Your task to perform on an android device: Go to calendar. Show me events next week Image 0: 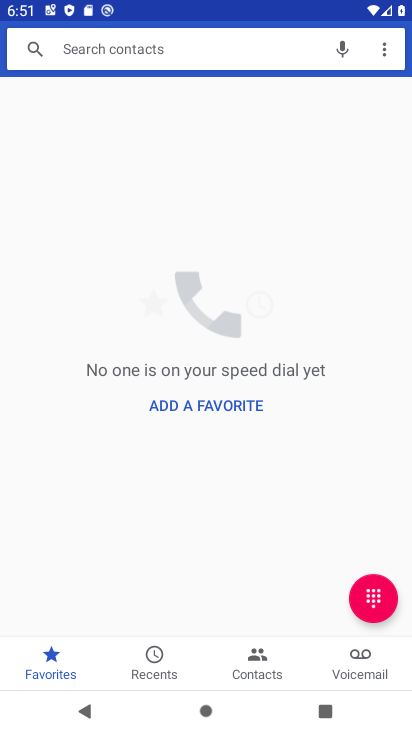
Step 0: press home button
Your task to perform on an android device: Go to calendar. Show me events next week Image 1: 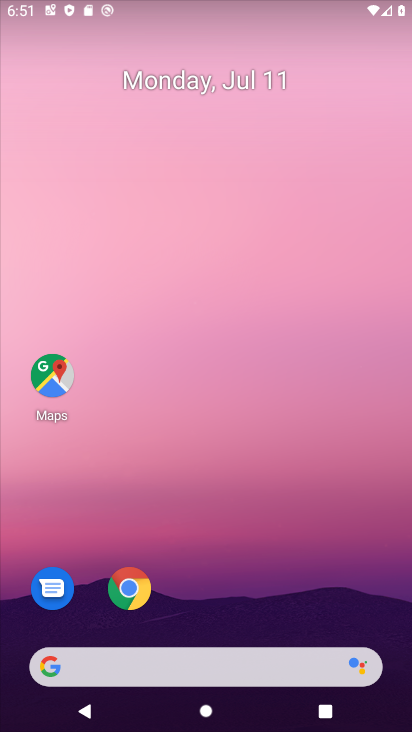
Step 1: drag from (389, 656) to (203, 176)
Your task to perform on an android device: Go to calendar. Show me events next week Image 2: 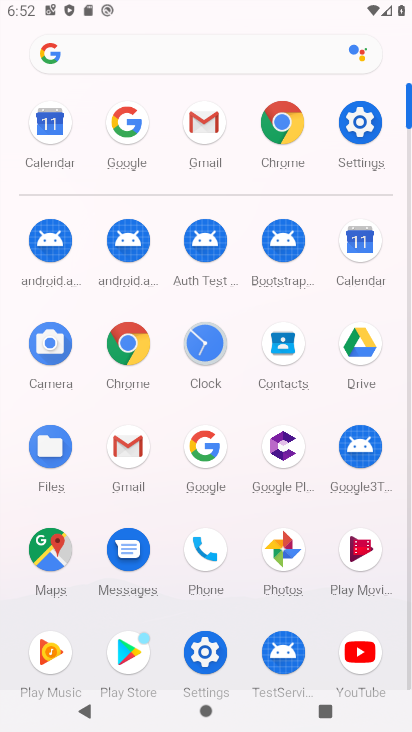
Step 2: click (368, 253)
Your task to perform on an android device: Go to calendar. Show me events next week Image 3: 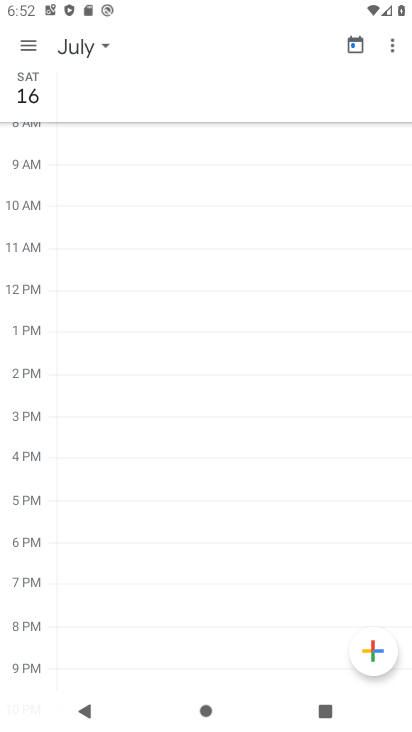
Step 3: click (71, 44)
Your task to perform on an android device: Go to calendar. Show me events next week Image 4: 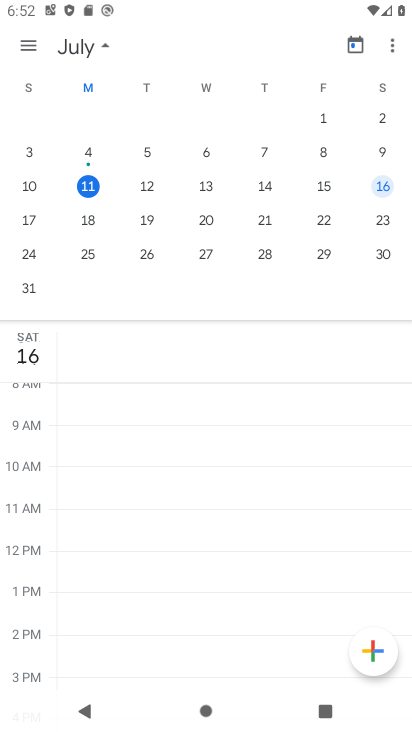
Step 4: click (381, 186)
Your task to perform on an android device: Go to calendar. Show me events next week Image 5: 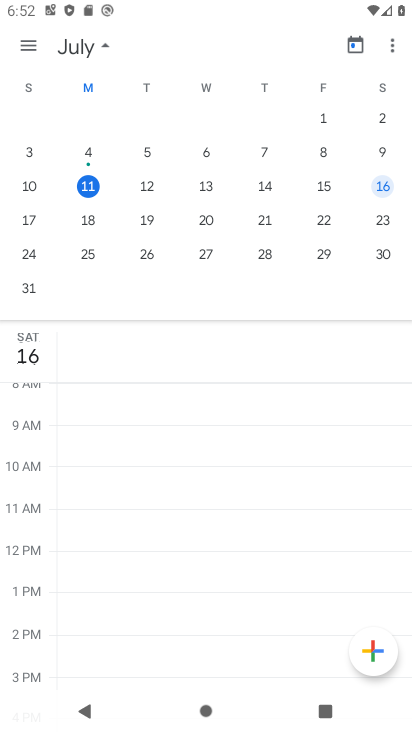
Step 5: click (381, 186)
Your task to perform on an android device: Go to calendar. Show me events next week Image 6: 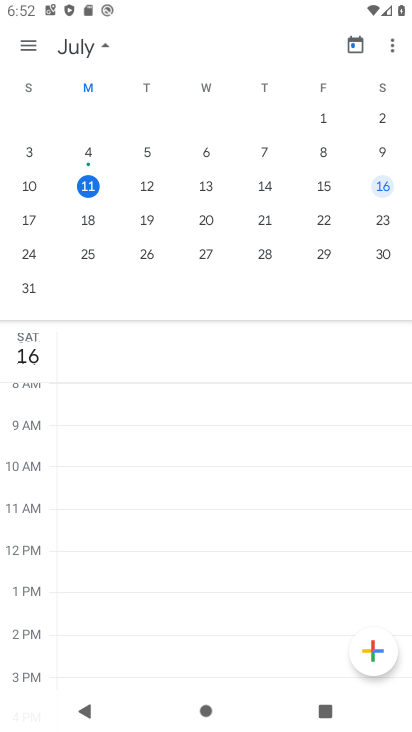
Step 6: click (87, 353)
Your task to perform on an android device: Go to calendar. Show me events next week Image 7: 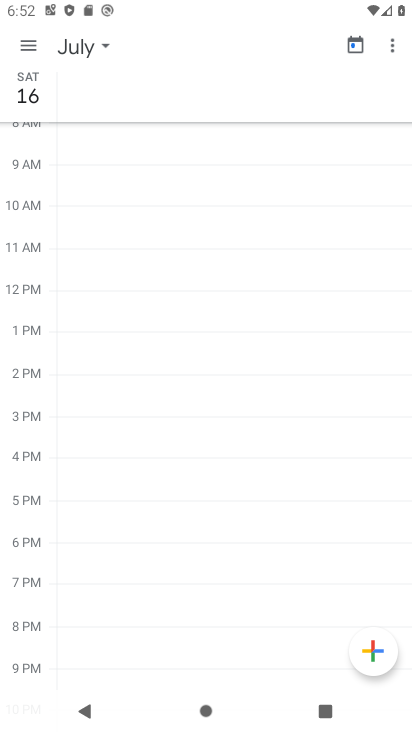
Step 7: task complete